Your task to perform on an android device: change the clock style Image 0: 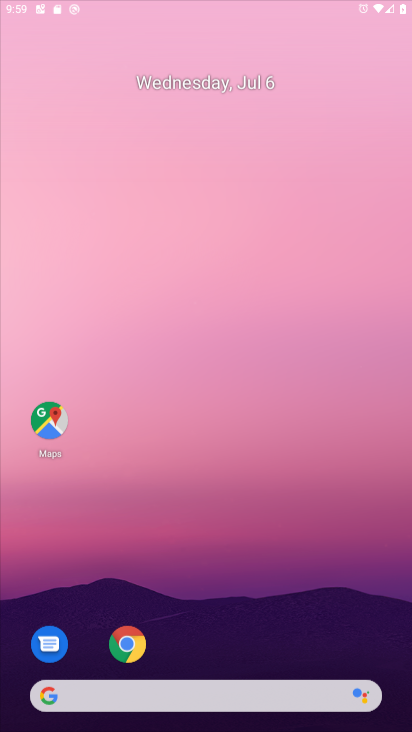
Step 0: drag from (230, 577) to (215, 128)
Your task to perform on an android device: change the clock style Image 1: 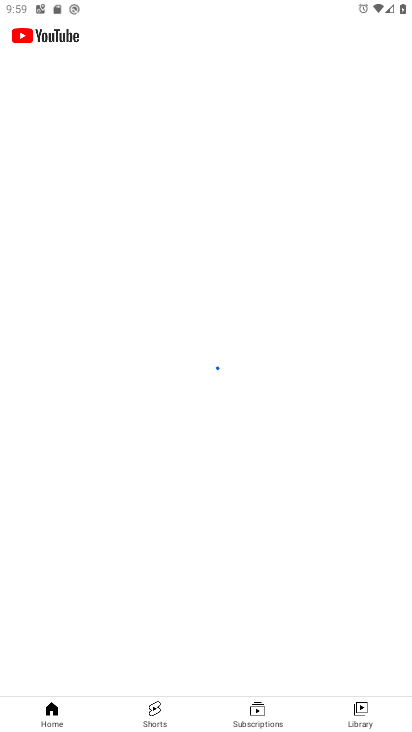
Step 1: press home button
Your task to perform on an android device: change the clock style Image 2: 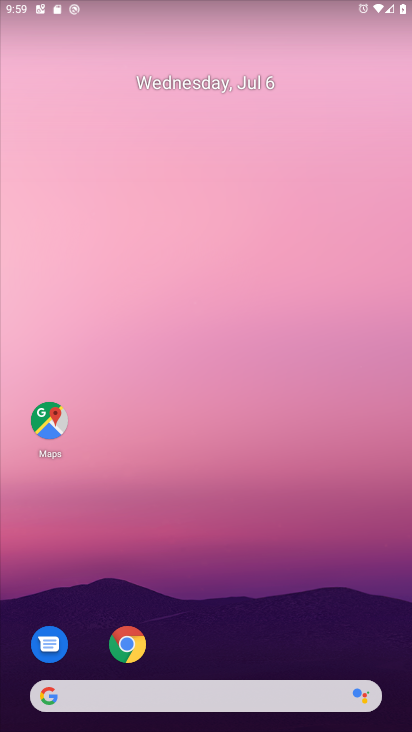
Step 2: drag from (206, 637) to (239, 37)
Your task to perform on an android device: change the clock style Image 3: 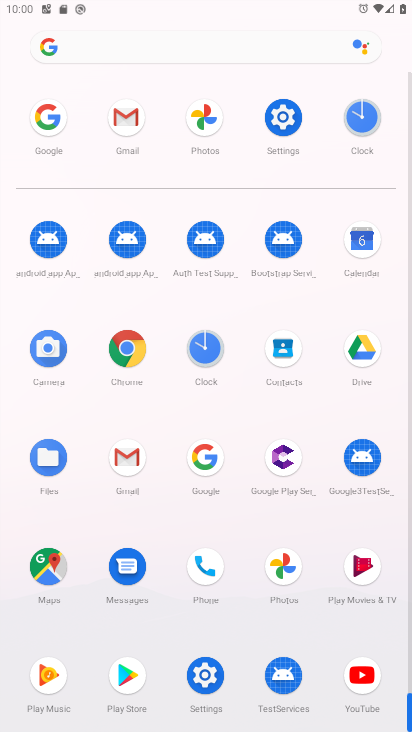
Step 3: click (210, 363)
Your task to perform on an android device: change the clock style Image 4: 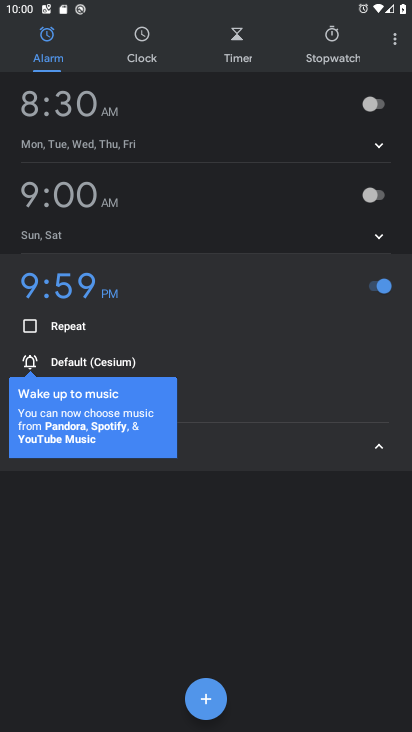
Step 4: click (395, 43)
Your task to perform on an android device: change the clock style Image 5: 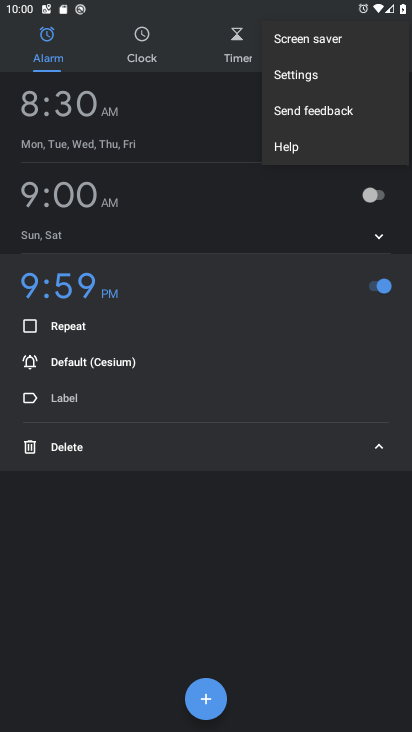
Step 5: click (288, 83)
Your task to perform on an android device: change the clock style Image 6: 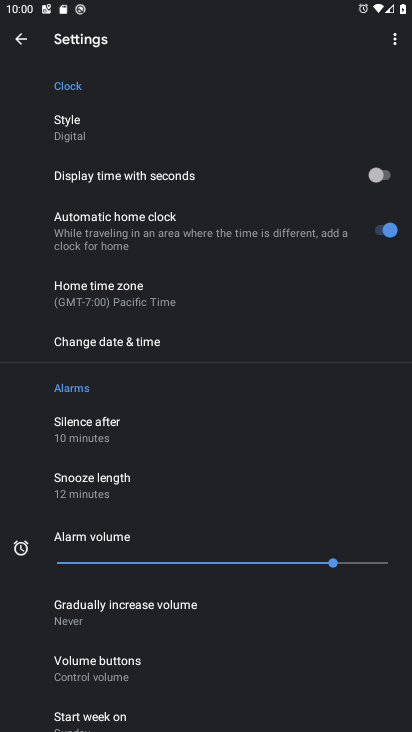
Step 6: drag from (159, 472) to (183, 293)
Your task to perform on an android device: change the clock style Image 7: 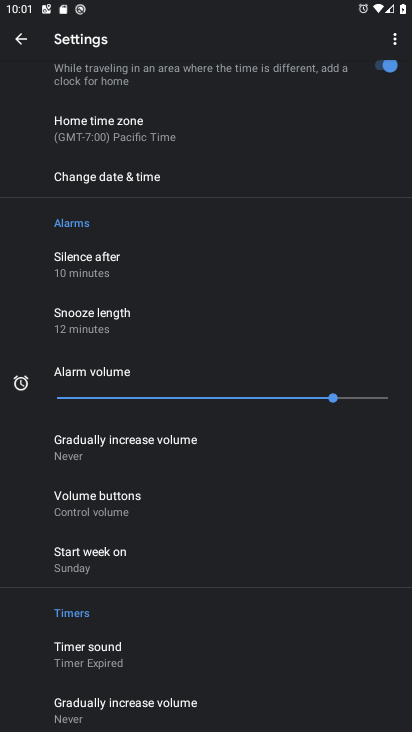
Step 7: drag from (199, 352) to (200, 528)
Your task to perform on an android device: change the clock style Image 8: 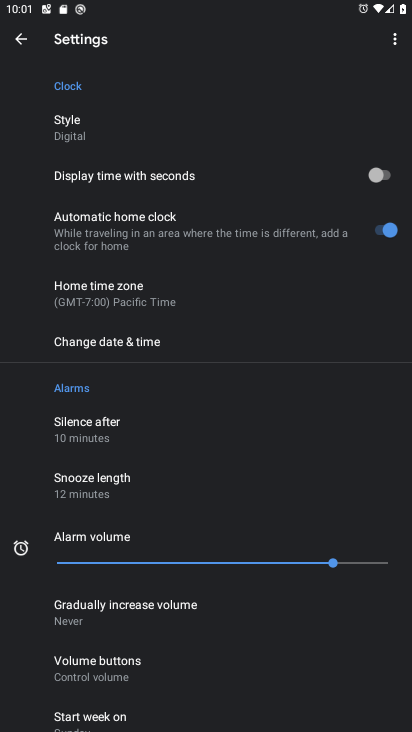
Step 8: click (106, 139)
Your task to perform on an android device: change the clock style Image 9: 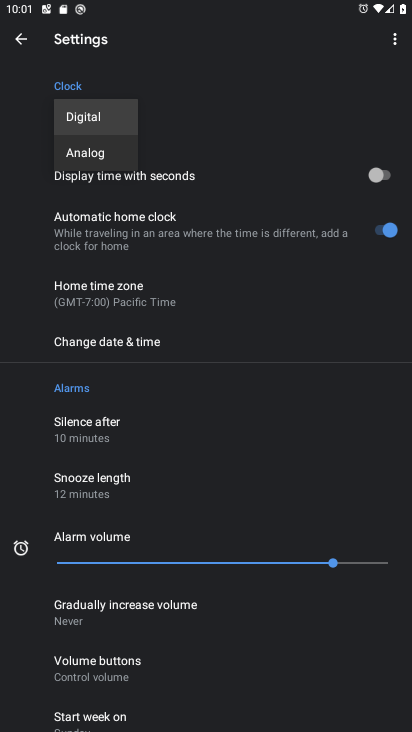
Step 9: click (109, 150)
Your task to perform on an android device: change the clock style Image 10: 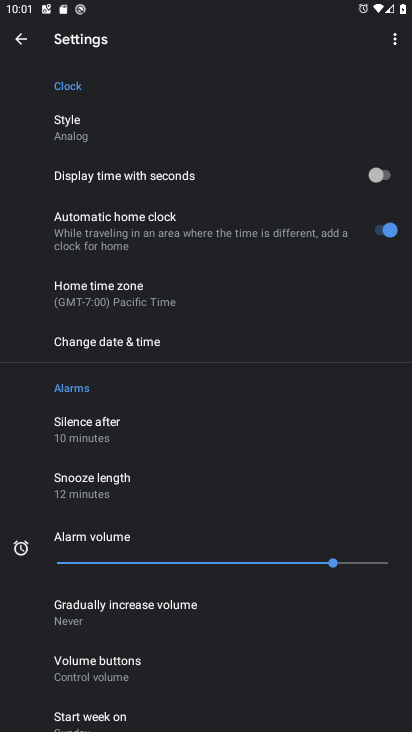
Step 10: task complete